Your task to perform on an android device: open a bookmark in the chrome app Image 0: 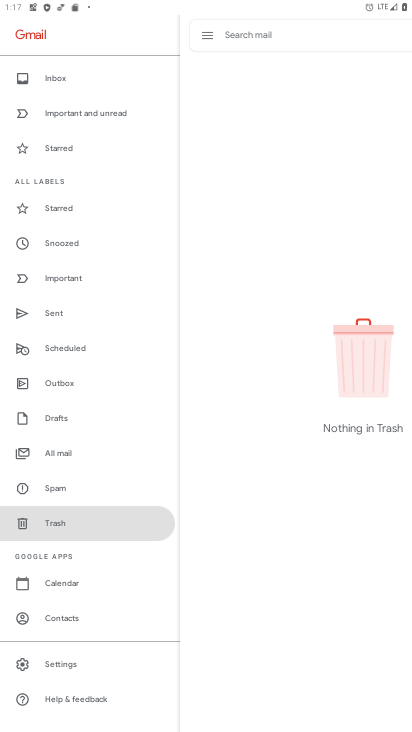
Step 0: press home button
Your task to perform on an android device: open a bookmark in the chrome app Image 1: 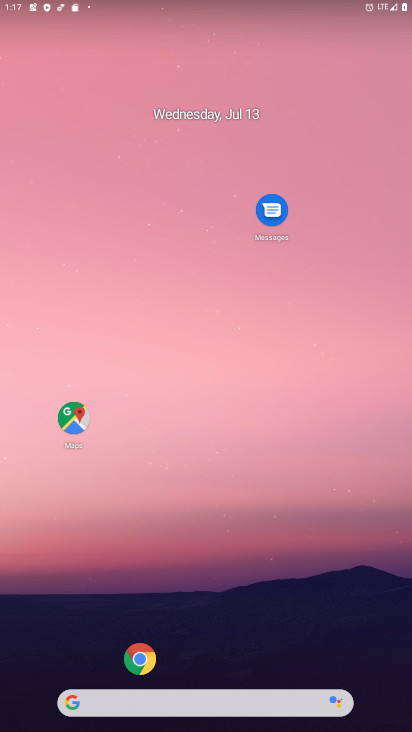
Step 1: click (144, 634)
Your task to perform on an android device: open a bookmark in the chrome app Image 2: 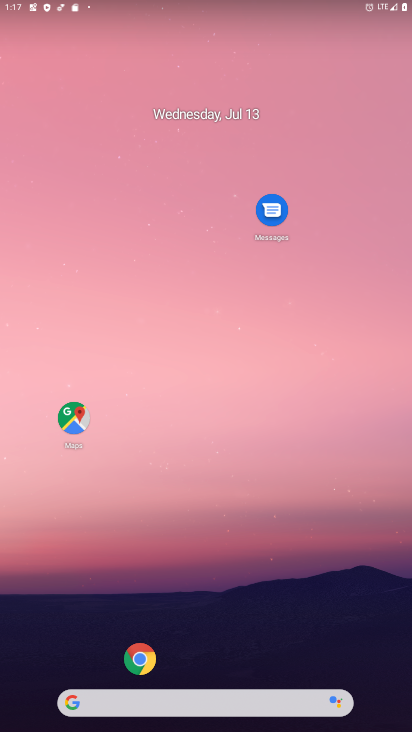
Step 2: click (134, 663)
Your task to perform on an android device: open a bookmark in the chrome app Image 3: 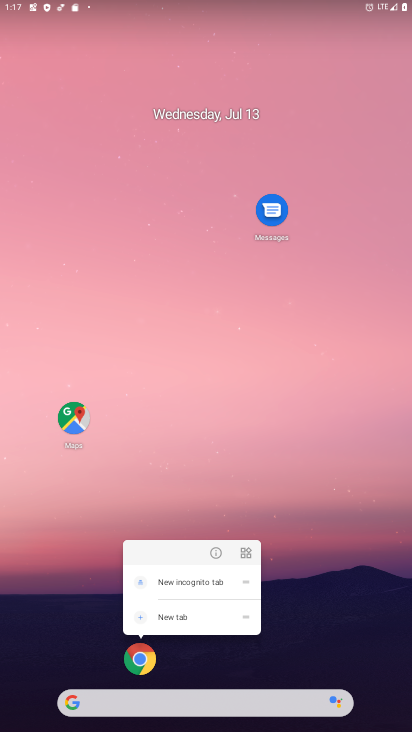
Step 3: click (134, 662)
Your task to perform on an android device: open a bookmark in the chrome app Image 4: 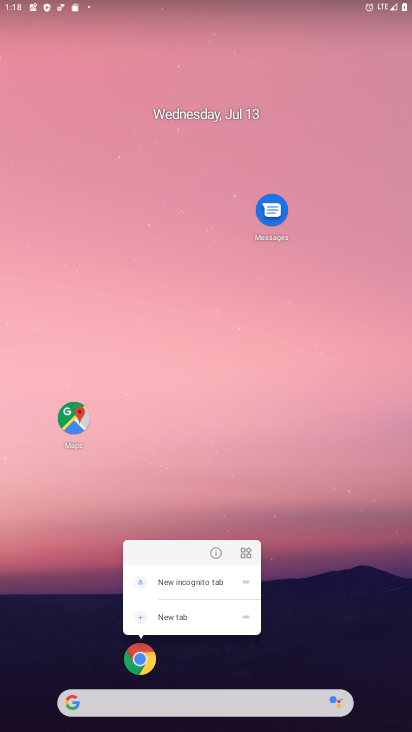
Step 4: click (138, 644)
Your task to perform on an android device: open a bookmark in the chrome app Image 5: 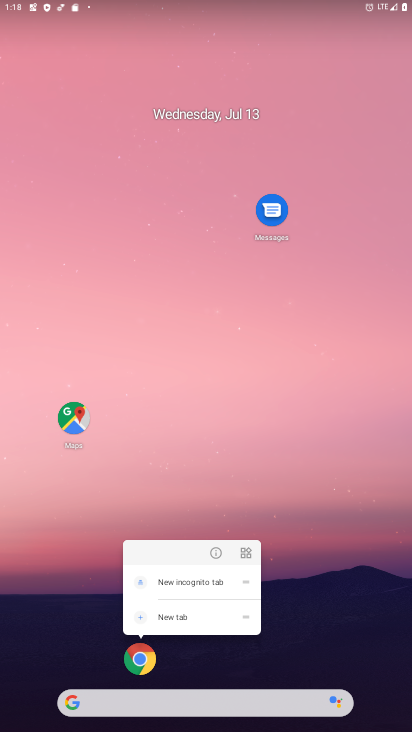
Step 5: click (129, 651)
Your task to perform on an android device: open a bookmark in the chrome app Image 6: 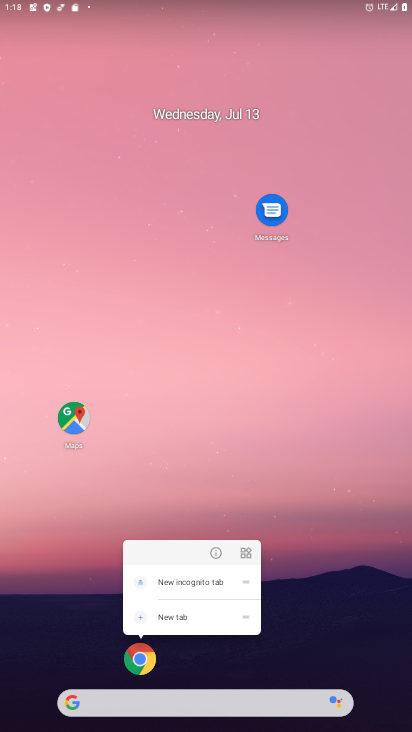
Step 6: task complete